Your task to perform on an android device: Open Reddit.com Image 0: 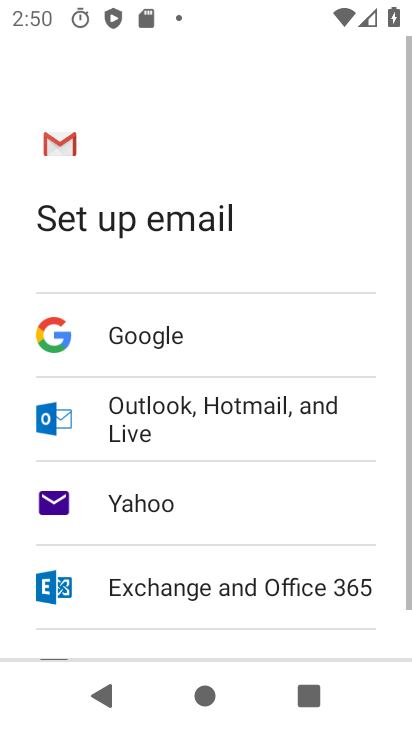
Step 0: press home button
Your task to perform on an android device: Open Reddit.com Image 1: 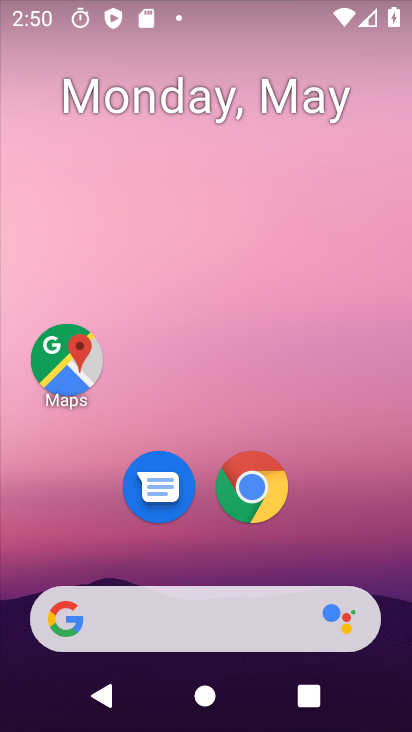
Step 1: drag from (217, 548) to (314, 47)
Your task to perform on an android device: Open Reddit.com Image 2: 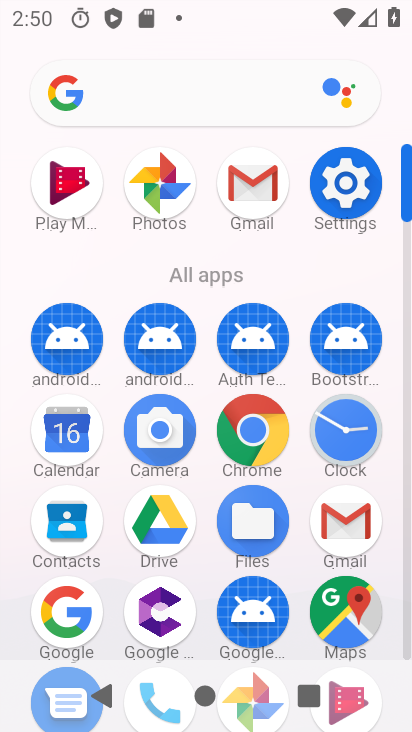
Step 2: click (264, 428)
Your task to perform on an android device: Open Reddit.com Image 3: 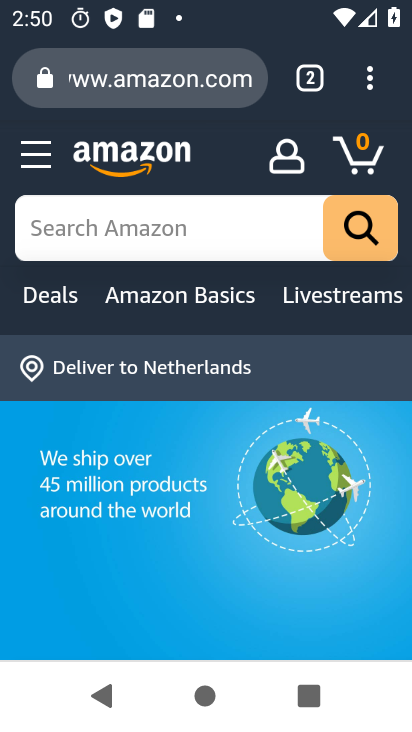
Step 3: click (216, 80)
Your task to perform on an android device: Open Reddit.com Image 4: 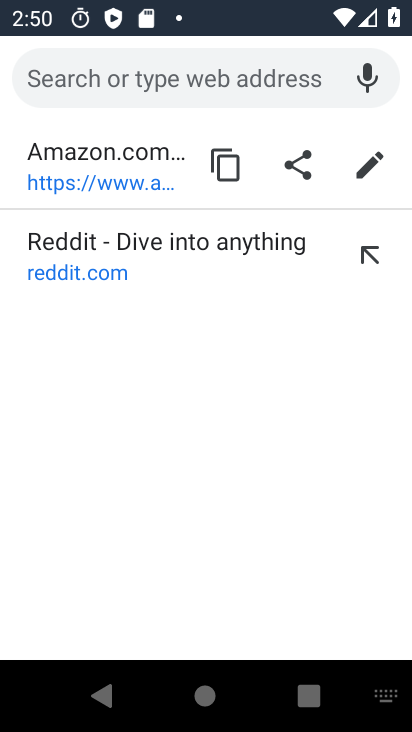
Step 4: type "Reddit.com"
Your task to perform on an android device: Open Reddit.com Image 5: 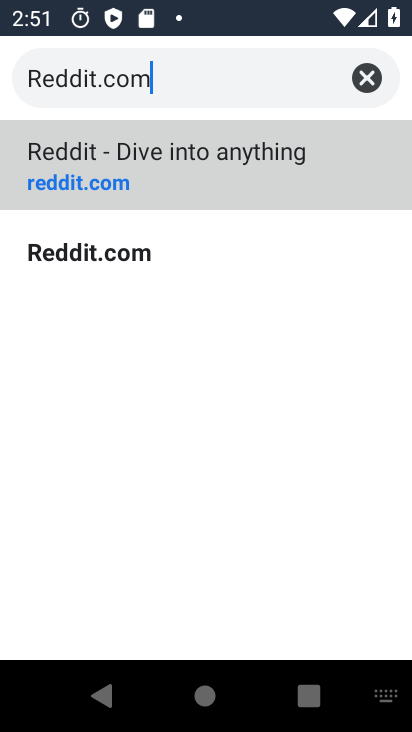
Step 5: click (104, 251)
Your task to perform on an android device: Open Reddit.com Image 6: 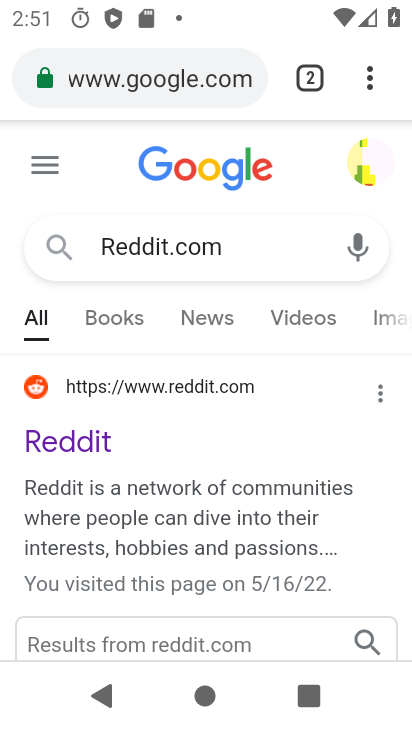
Step 6: task complete